Your task to perform on an android device: Search for the best deal on a 3d printer on aliexpress Image 0: 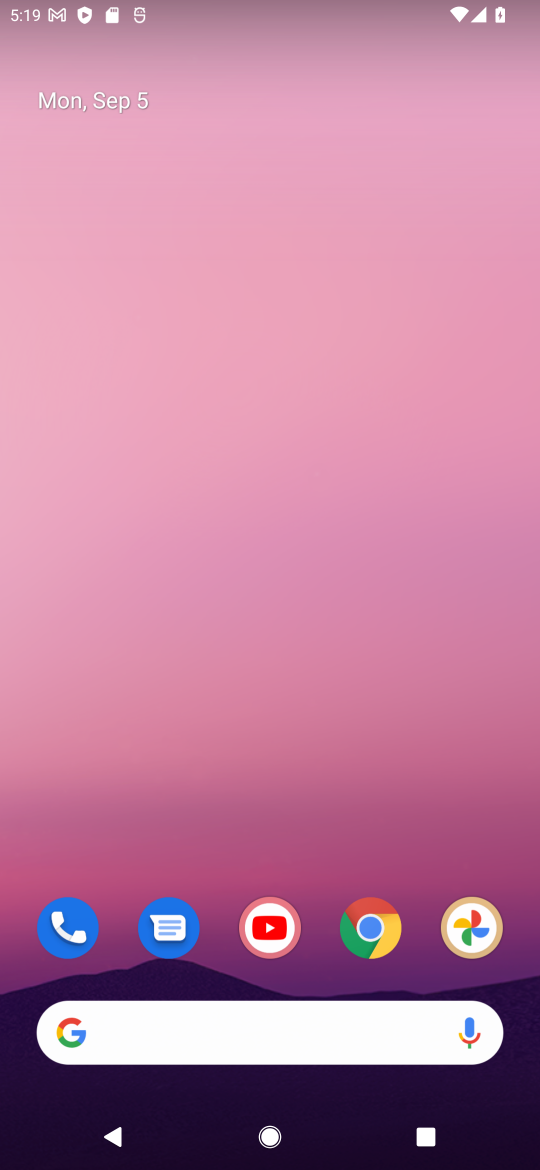
Step 0: drag from (336, 1014) to (338, 718)
Your task to perform on an android device: Search for the best deal on a 3d printer on aliexpress Image 1: 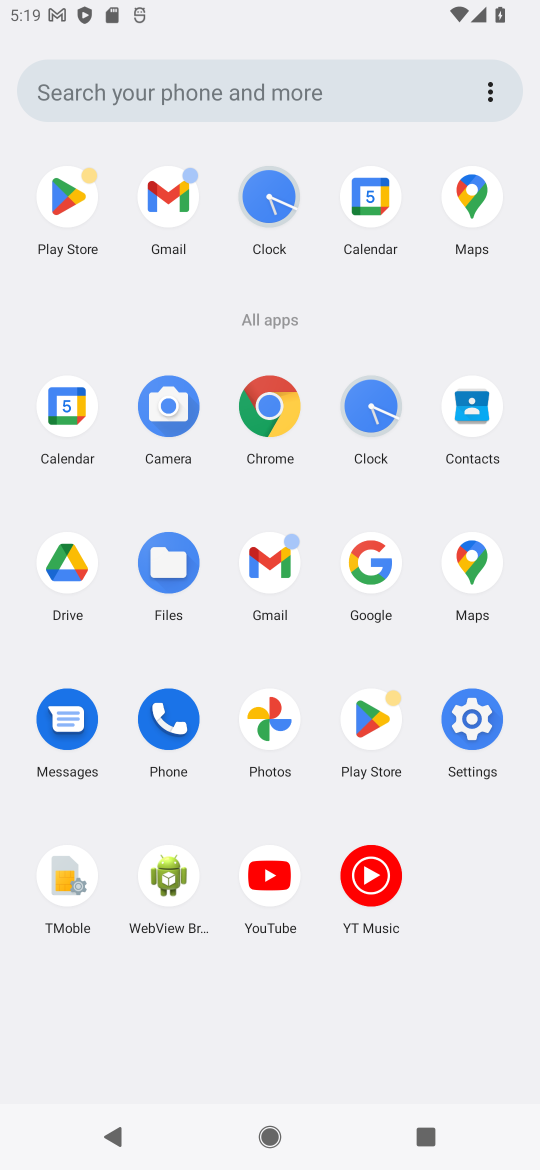
Step 1: click (275, 398)
Your task to perform on an android device: Search for the best deal on a 3d printer on aliexpress Image 2: 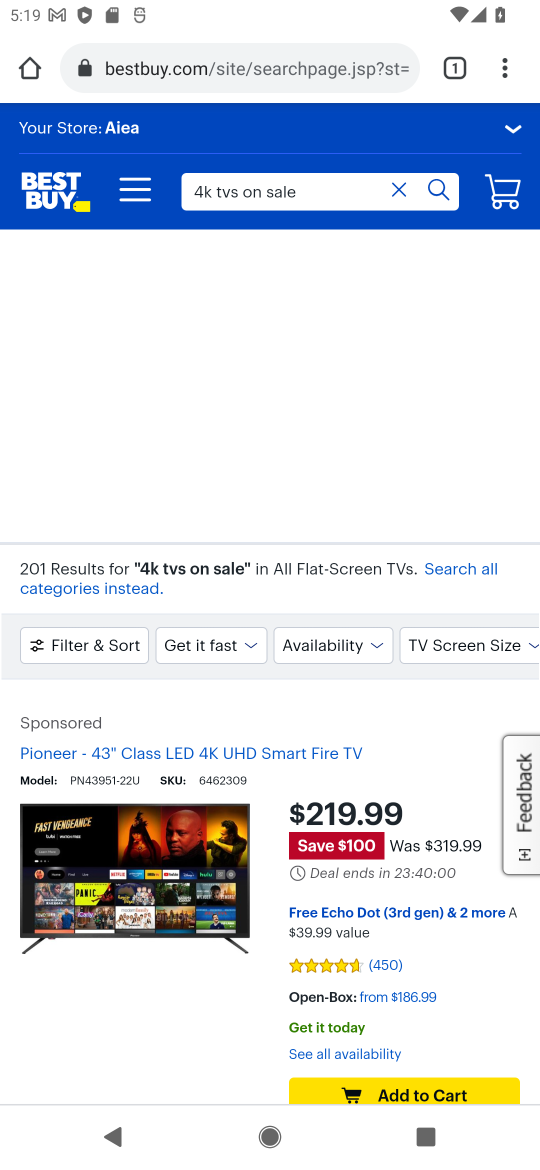
Step 2: click (250, 68)
Your task to perform on an android device: Search for the best deal on a 3d printer on aliexpress Image 3: 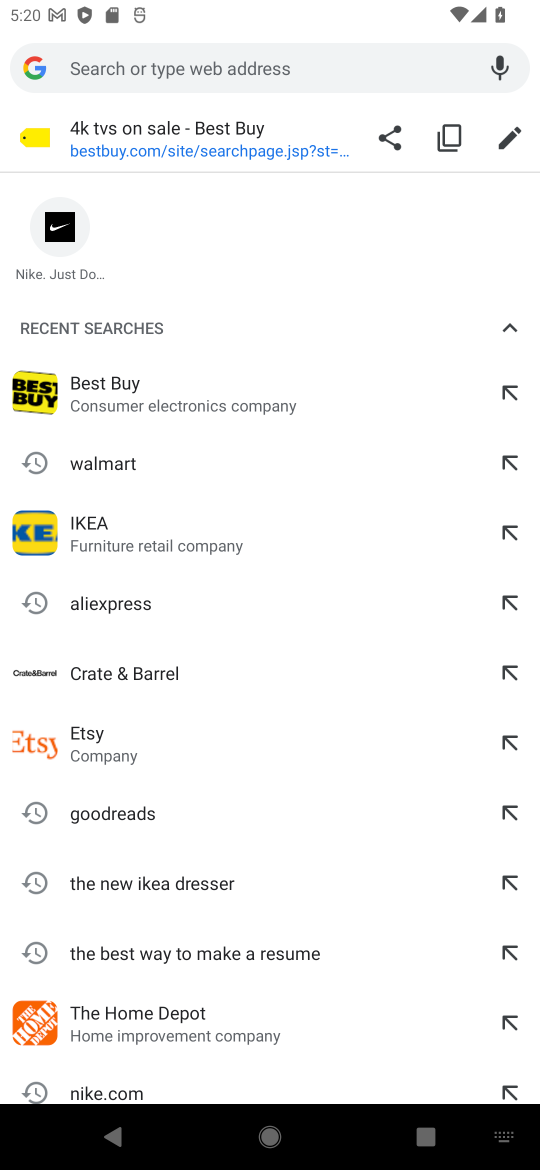
Step 3: type "aliexpress"
Your task to perform on an android device: Search for the best deal on a 3d printer on aliexpress Image 4: 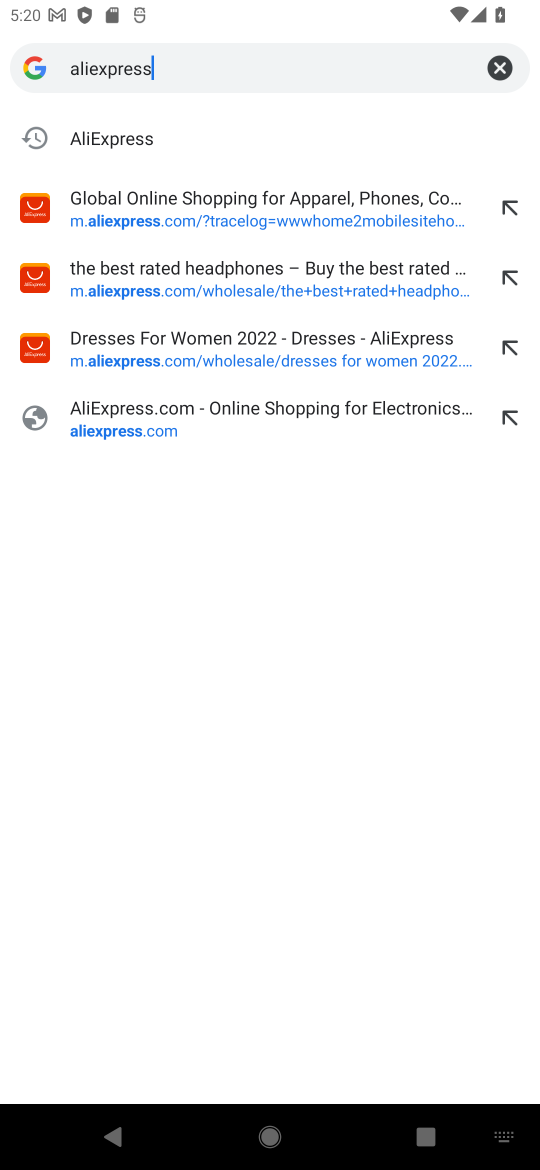
Step 4: click (148, 146)
Your task to perform on an android device: Search for the best deal on a 3d printer on aliexpress Image 5: 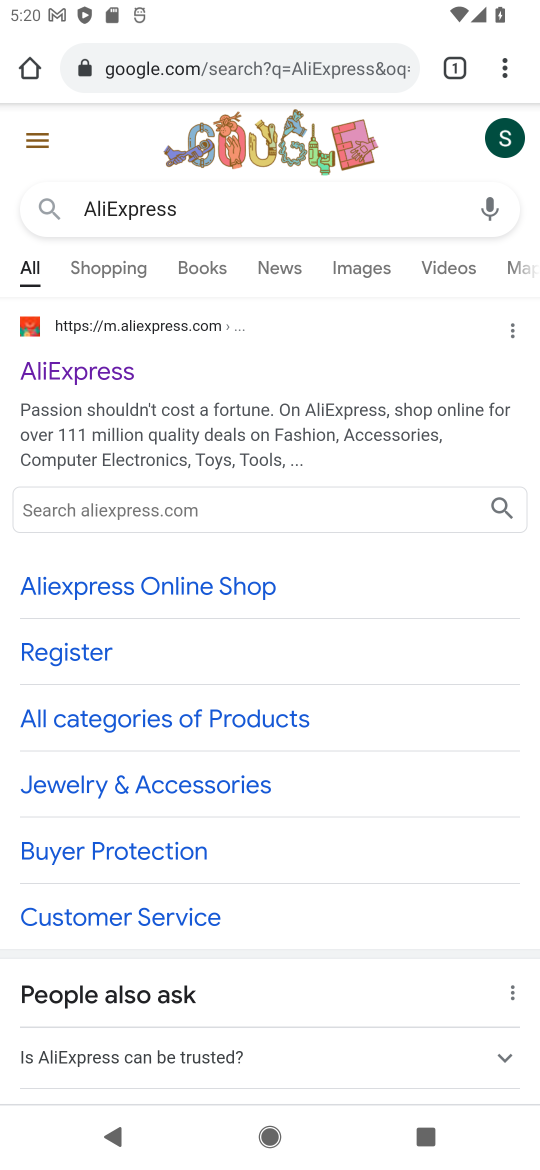
Step 5: click (47, 382)
Your task to perform on an android device: Search for the best deal on a 3d printer on aliexpress Image 6: 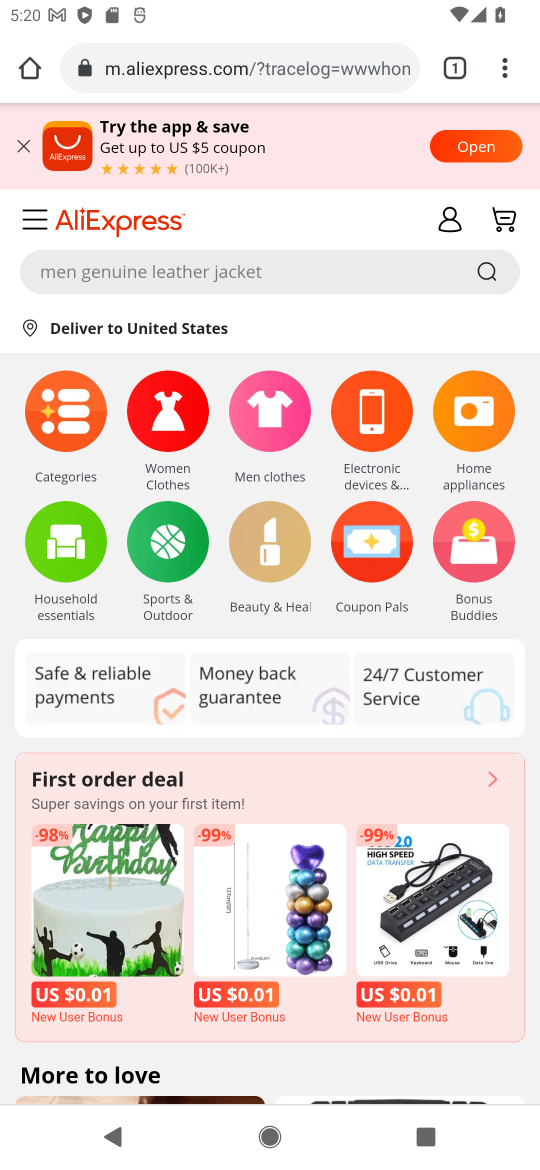
Step 6: click (267, 263)
Your task to perform on an android device: Search for the best deal on a 3d printer on aliexpress Image 7: 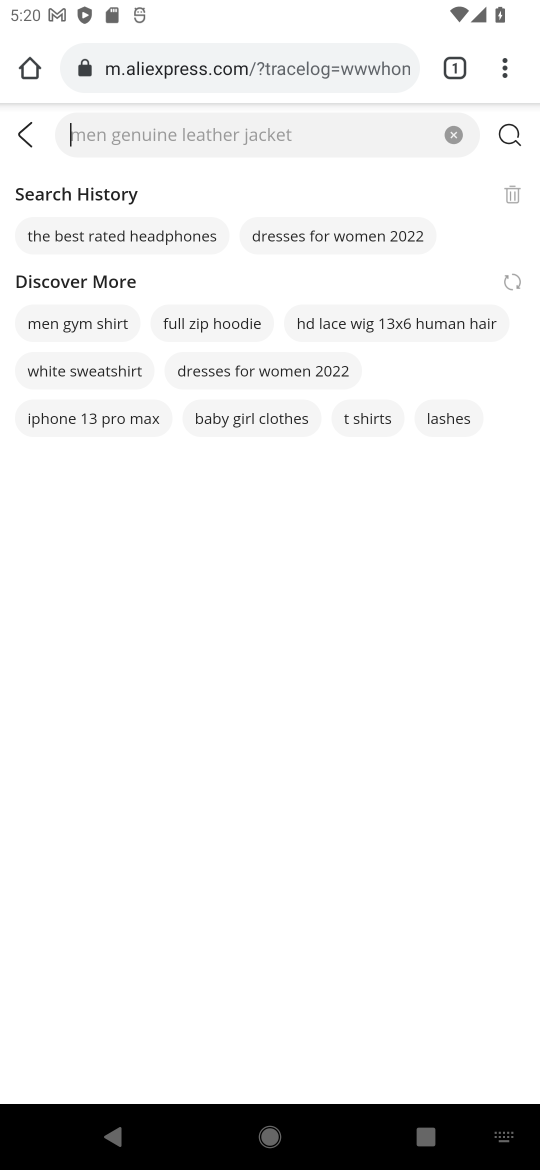
Step 7: type "the best deal on a 3d printer"
Your task to perform on an android device: Search for the best deal on a 3d printer on aliexpress Image 8: 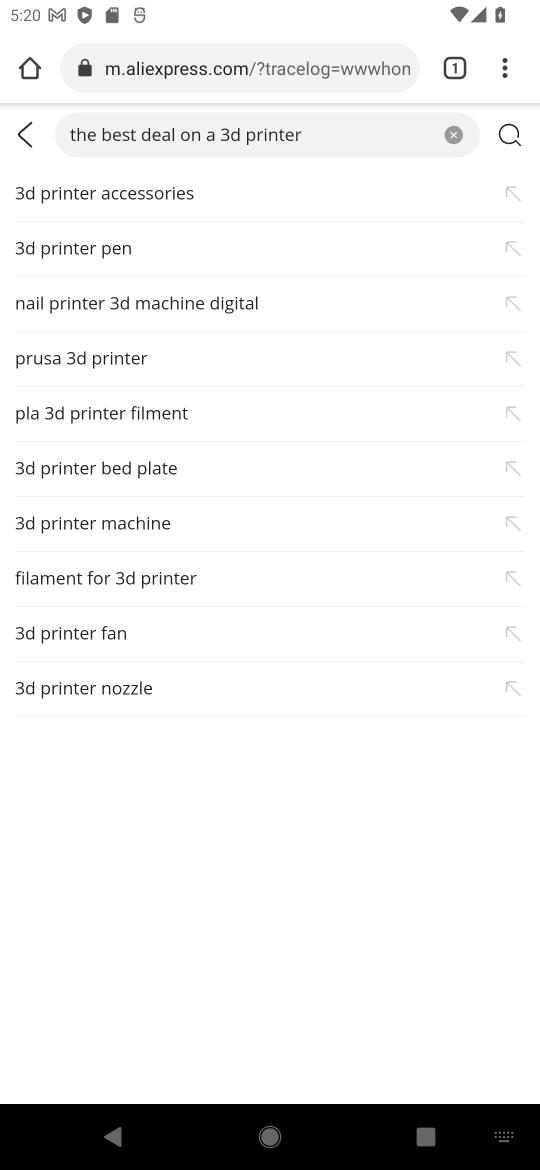
Step 8: click (511, 128)
Your task to perform on an android device: Search for the best deal on a 3d printer on aliexpress Image 9: 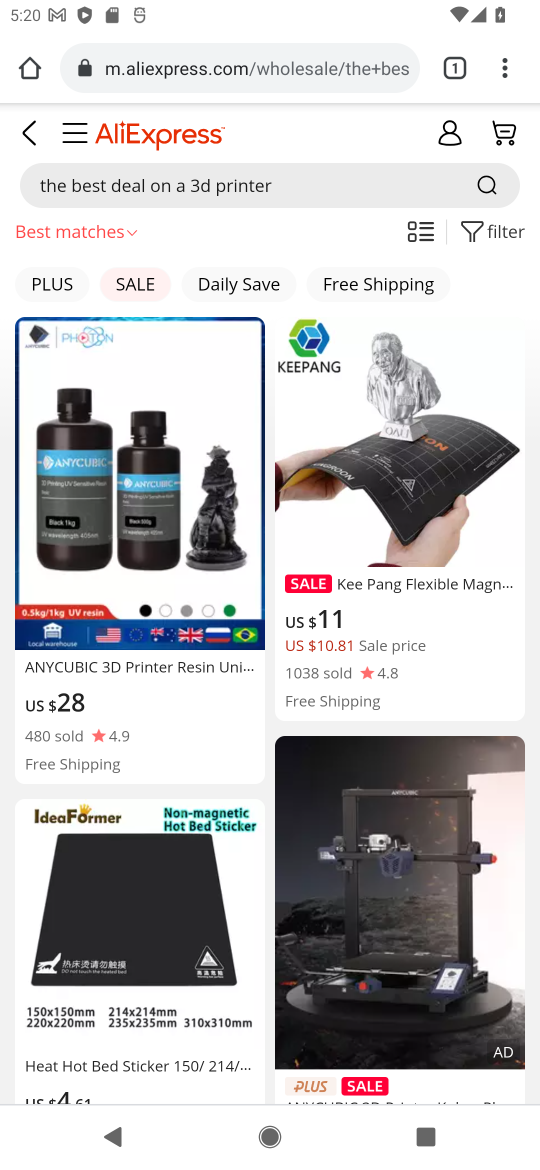
Step 9: task complete